Your task to perform on an android device: move a message to another label in the gmail app Image 0: 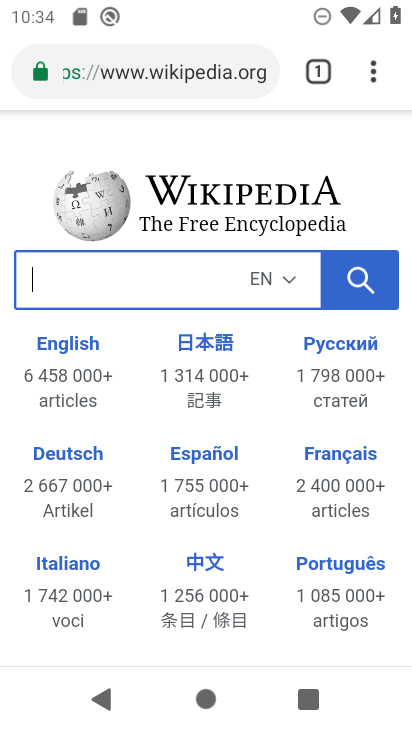
Step 0: press home button
Your task to perform on an android device: move a message to another label in the gmail app Image 1: 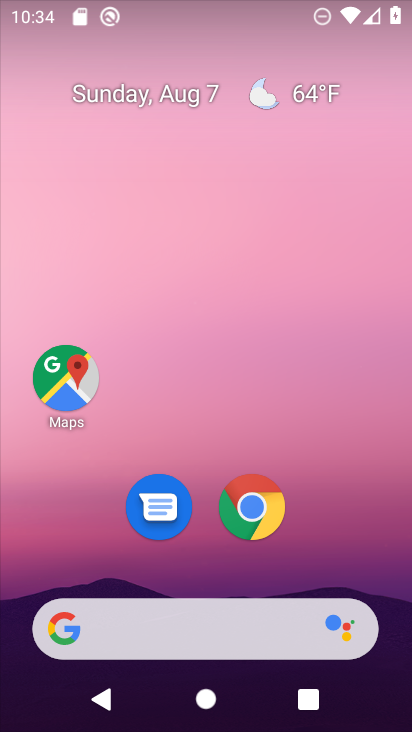
Step 1: drag from (373, 535) to (137, 15)
Your task to perform on an android device: move a message to another label in the gmail app Image 2: 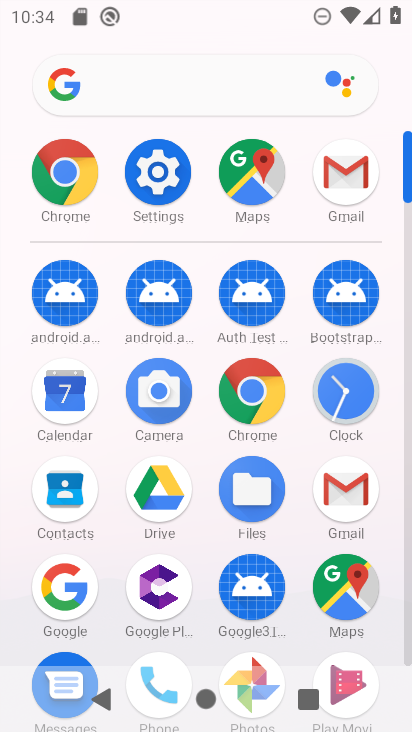
Step 2: click (348, 492)
Your task to perform on an android device: move a message to another label in the gmail app Image 3: 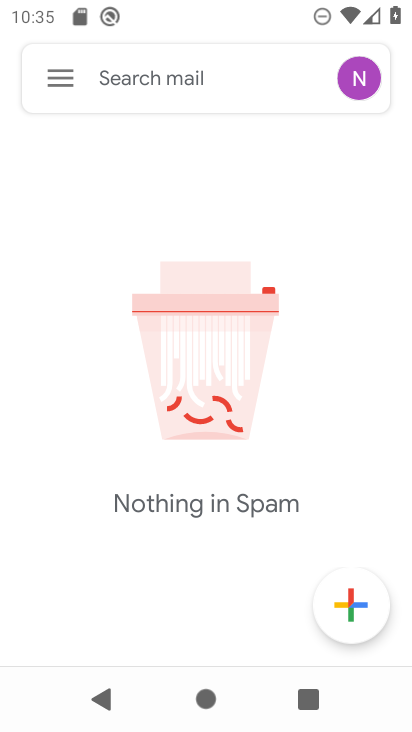
Step 3: click (51, 69)
Your task to perform on an android device: move a message to another label in the gmail app Image 4: 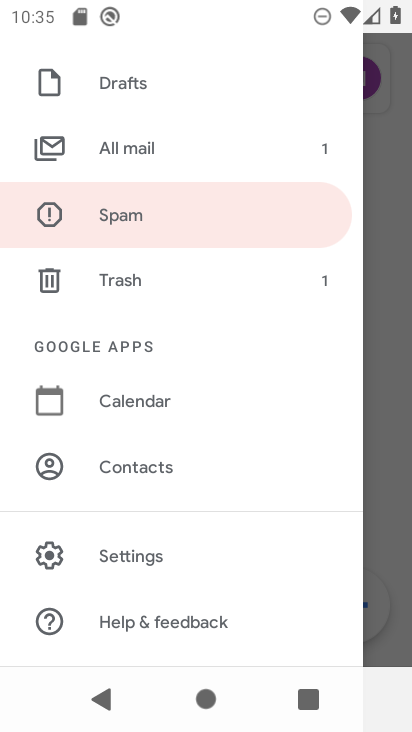
Step 4: click (139, 152)
Your task to perform on an android device: move a message to another label in the gmail app Image 5: 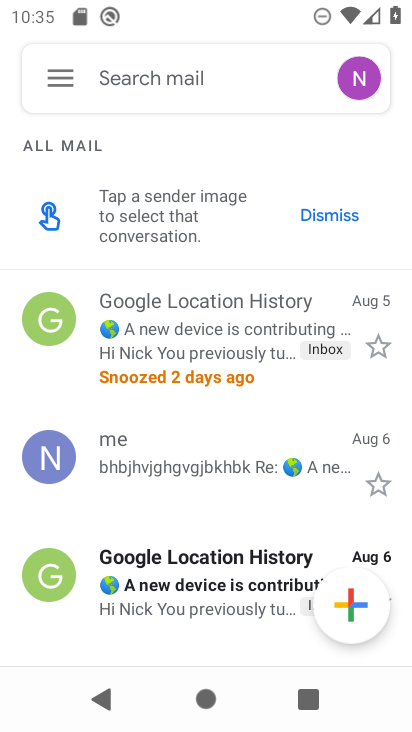
Step 5: click (178, 480)
Your task to perform on an android device: move a message to another label in the gmail app Image 6: 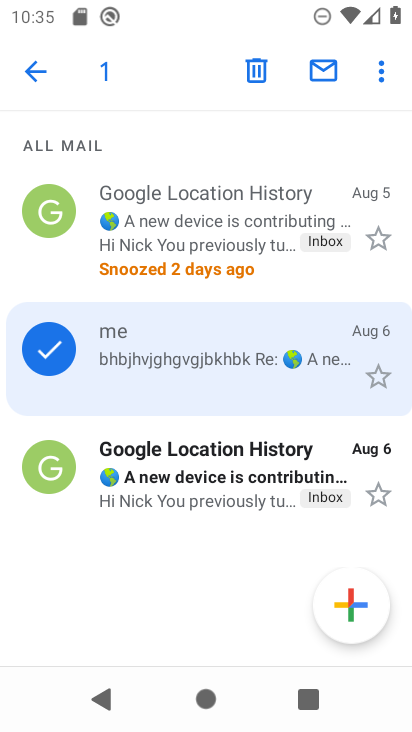
Step 6: click (377, 65)
Your task to perform on an android device: move a message to another label in the gmail app Image 7: 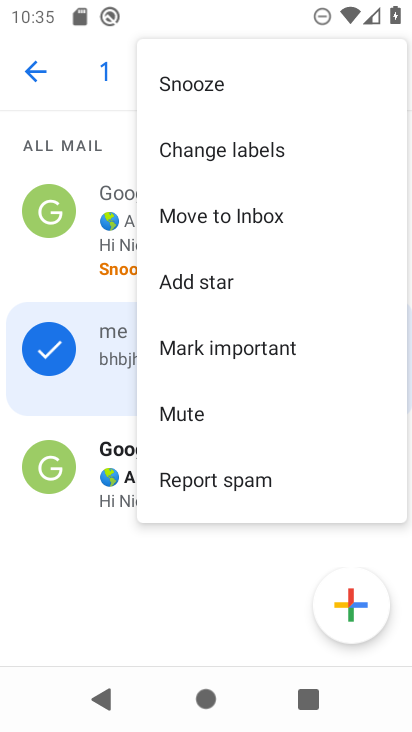
Step 7: click (221, 158)
Your task to perform on an android device: move a message to another label in the gmail app Image 8: 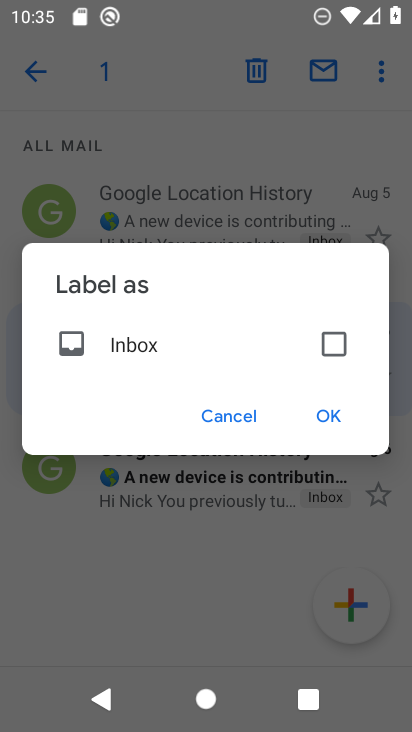
Step 8: click (337, 338)
Your task to perform on an android device: move a message to another label in the gmail app Image 9: 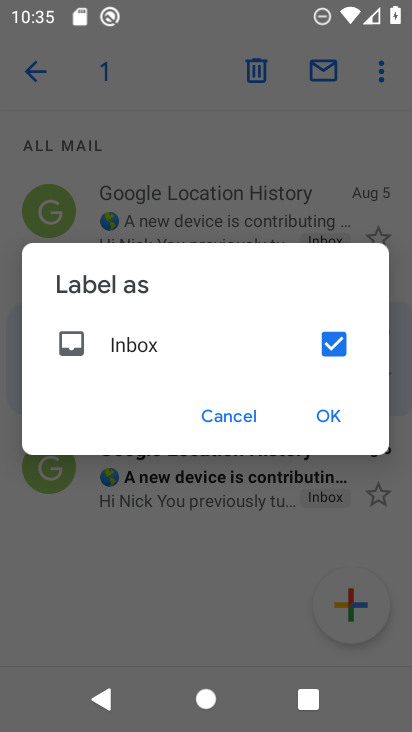
Step 9: click (323, 422)
Your task to perform on an android device: move a message to another label in the gmail app Image 10: 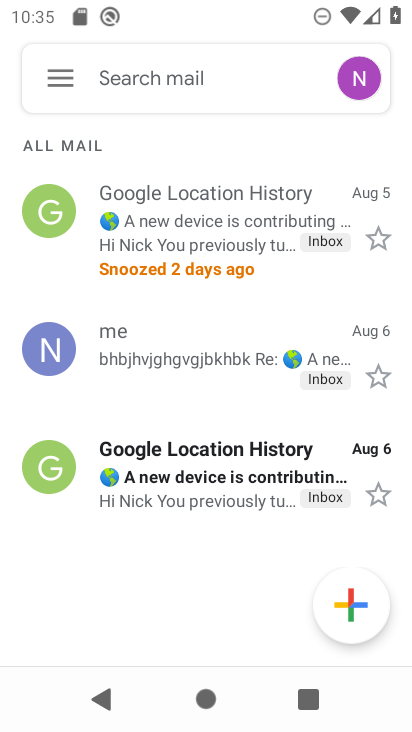
Step 10: task complete